Your task to perform on an android device: Open the calendar app Image 0: 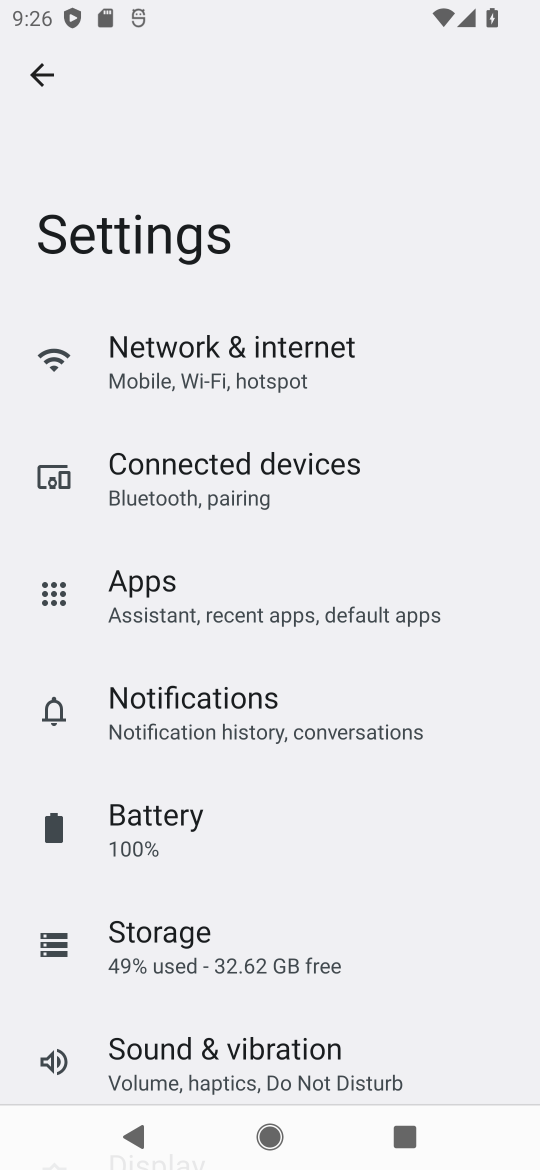
Step 0: press home button
Your task to perform on an android device: Open the calendar app Image 1: 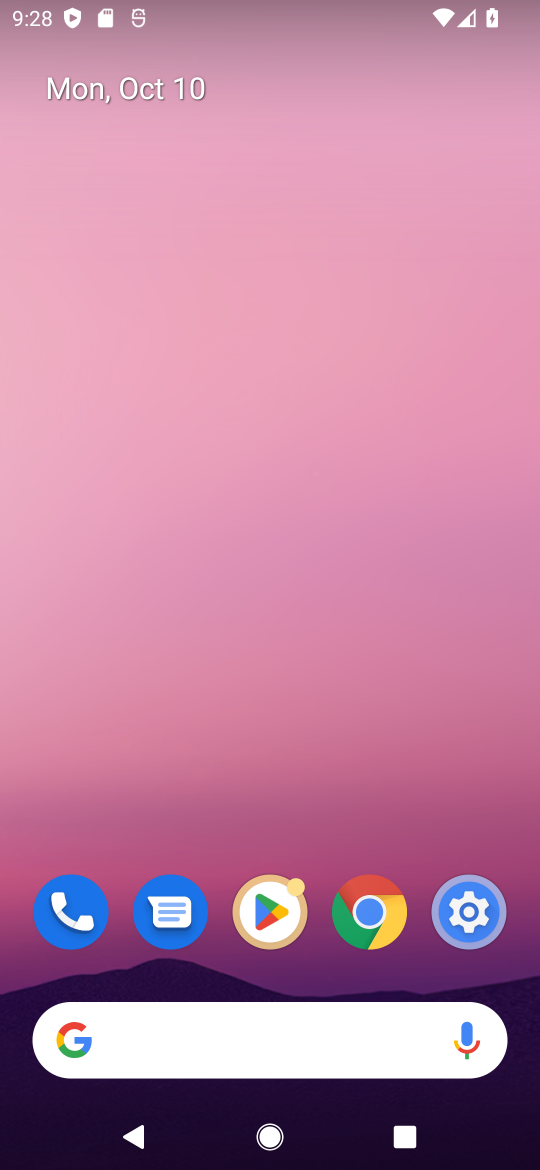
Step 1: drag from (165, 1033) to (180, 81)
Your task to perform on an android device: Open the calendar app Image 2: 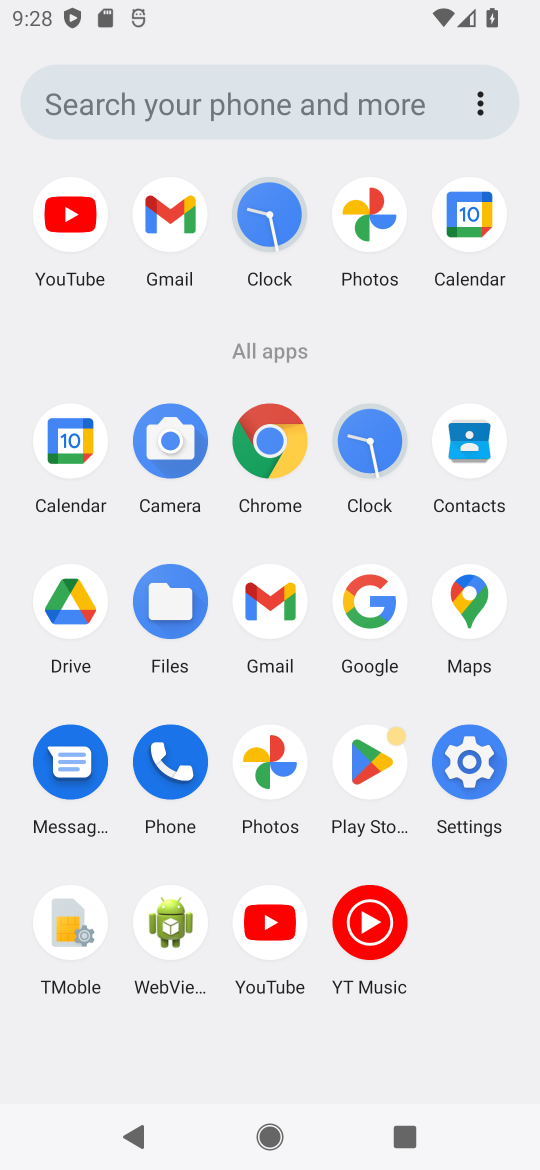
Step 2: click (64, 444)
Your task to perform on an android device: Open the calendar app Image 3: 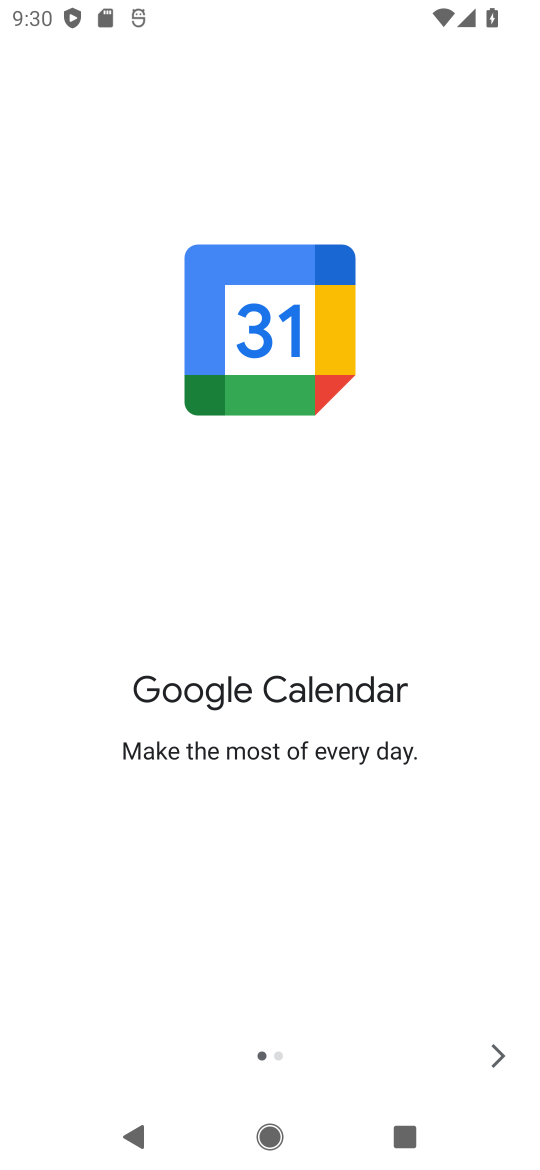
Step 3: task complete